Your task to perform on an android device: open app "Nova Launcher" Image 0: 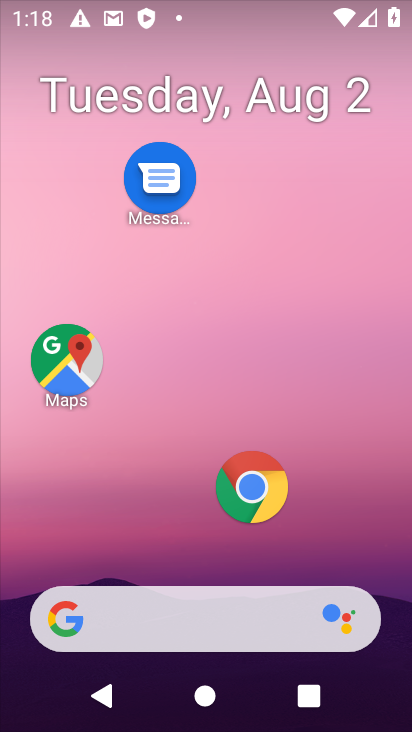
Step 0: drag from (166, 544) to (156, 171)
Your task to perform on an android device: open app "Nova Launcher" Image 1: 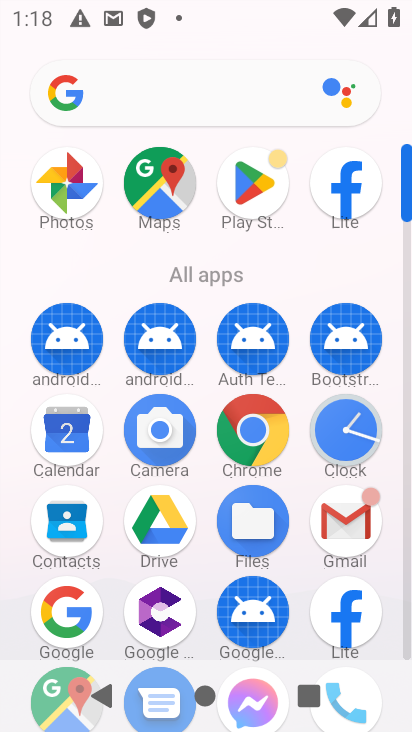
Step 1: click (248, 175)
Your task to perform on an android device: open app "Nova Launcher" Image 2: 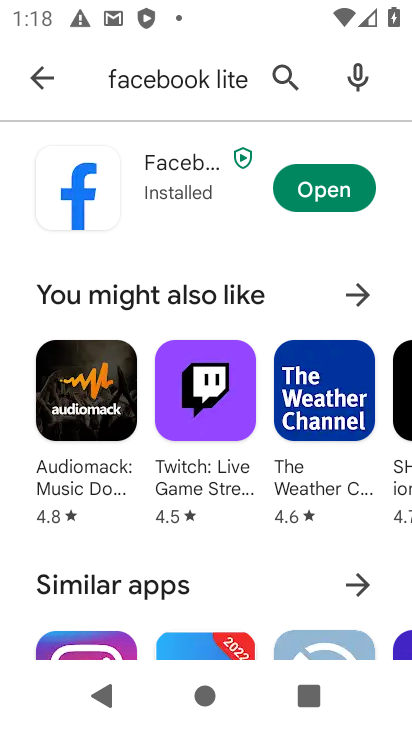
Step 2: click (272, 80)
Your task to perform on an android device: open app "Nova Launcher" Image 3: 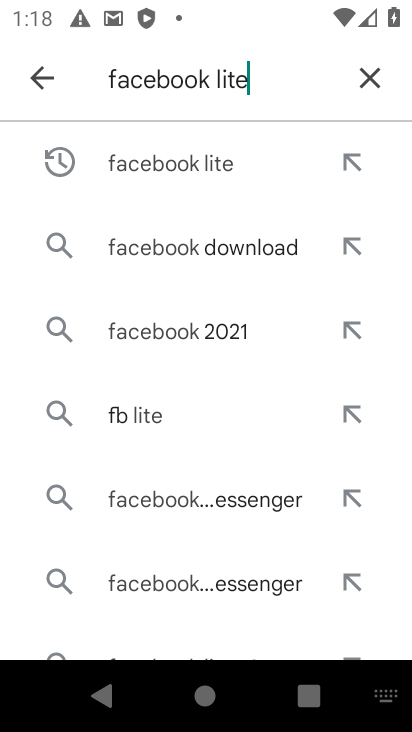
Step 3: click (373, 68)
Your task to perform on an android device: open app "Nova Launcher" Image 4: 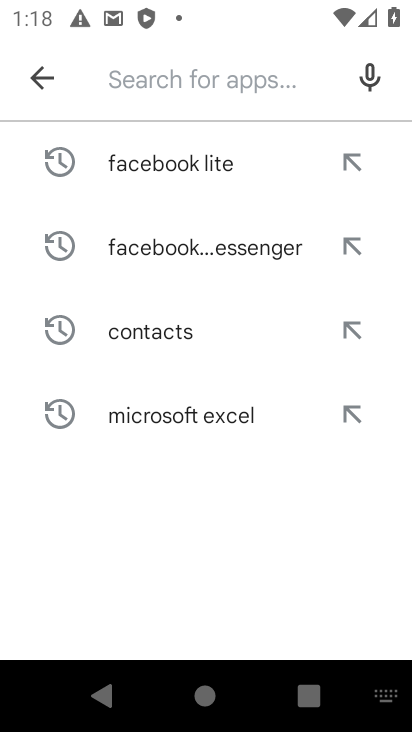
Step 4: type "Nova Launcher"
Your task to perform on an android device: open app "Nova Launcher" Image 5: 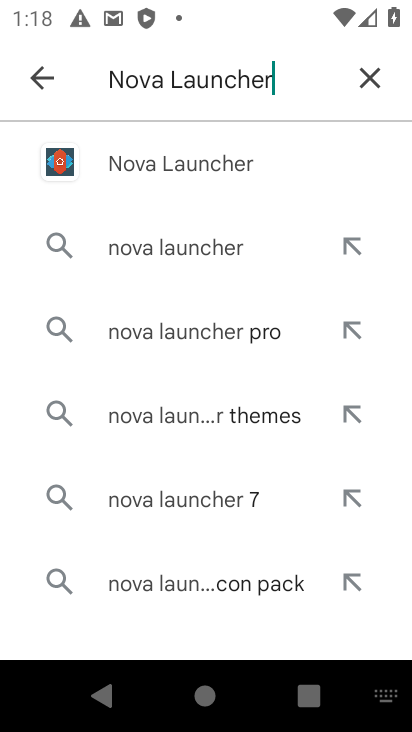
Step 5: click (212, 160)
Your task to perform on an android device: open app "Nova Launcher" Image 6: 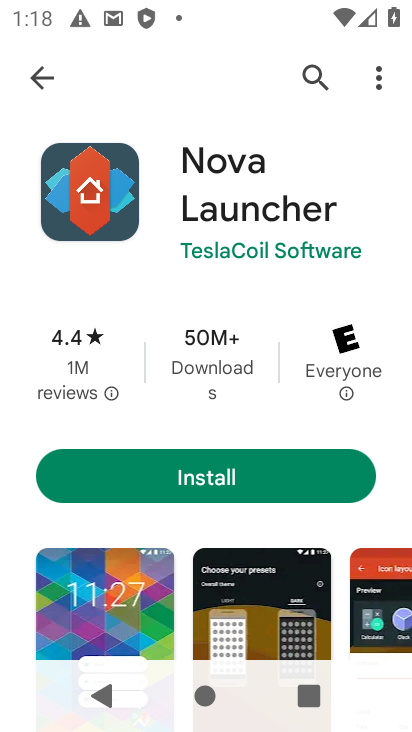
Step 6: task complete